Your task to perform on an android device: check battery use Image 0: 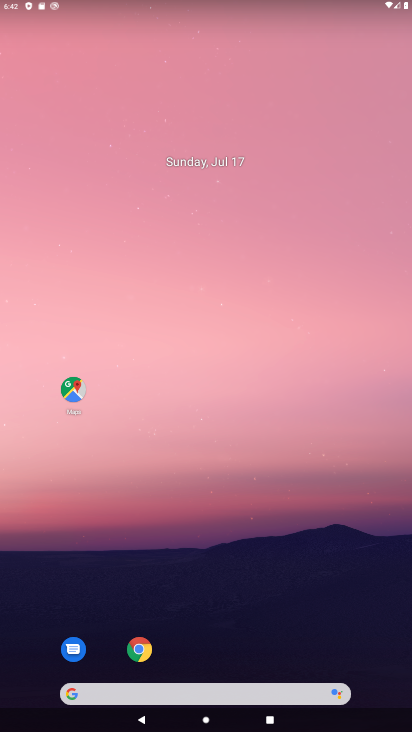
Step 0: drag from (244, 602) to (165, 73)
Your task to perform on an android device: check battery use Image 1: 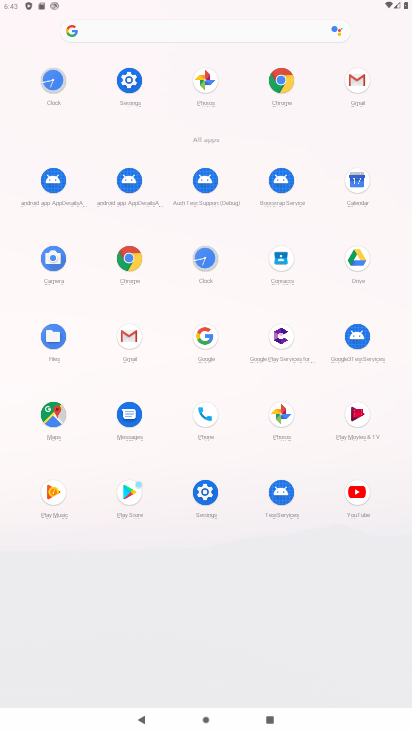
Step 1: click (130, 77)
Your task to perform on an android device: check battery use Image 2: 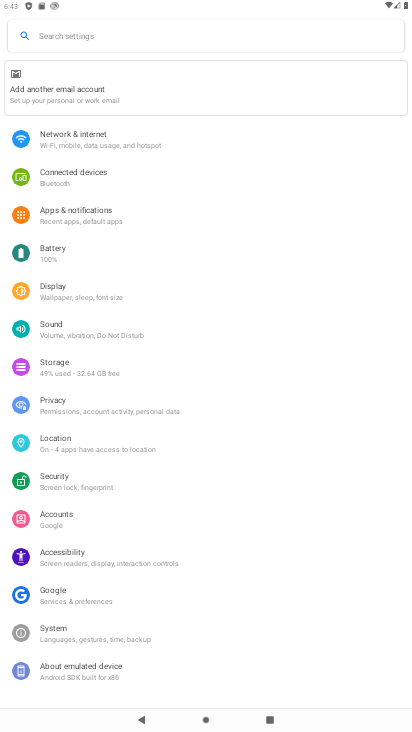
Step 2: click (50, 243)
Your task to perform on an android device: check battery use Image 3: 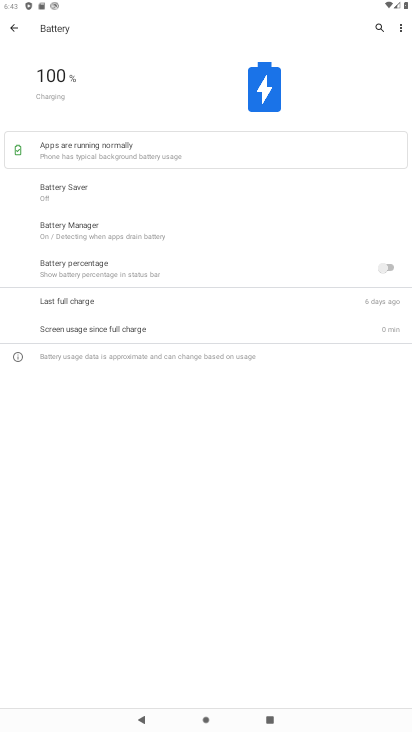
Step 3: task complete